Your task to perform on an android device: toggle sleep mode Image 0: 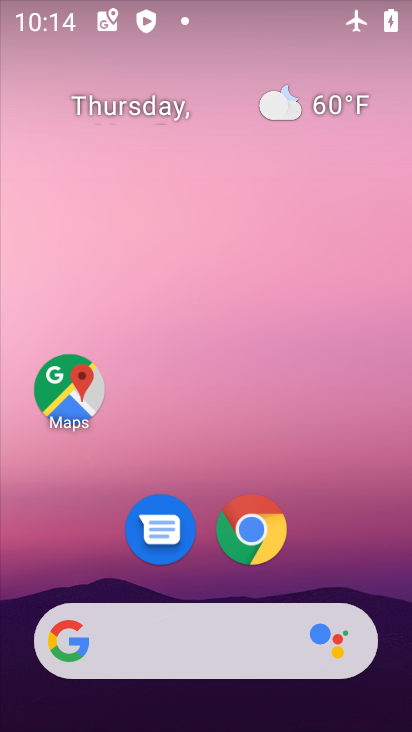
Step 0: drag from (366, 564) to (102, 76)
Your task to perform on an android device: toggle sleep mode Image 1: 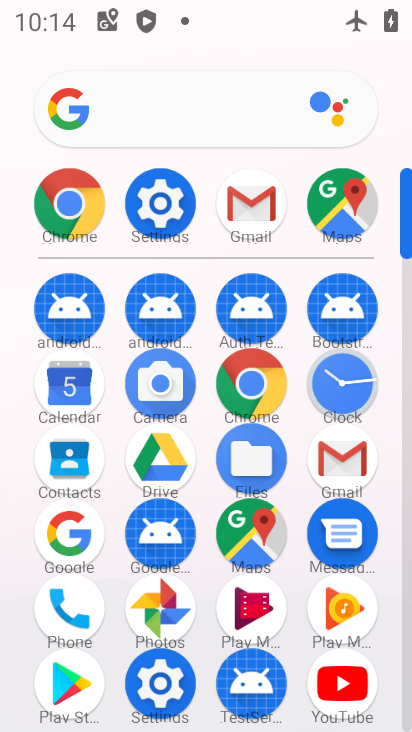
Step 1: click (167, 200)
Your task to perform on an android device: toggle sleep mode Image 2: 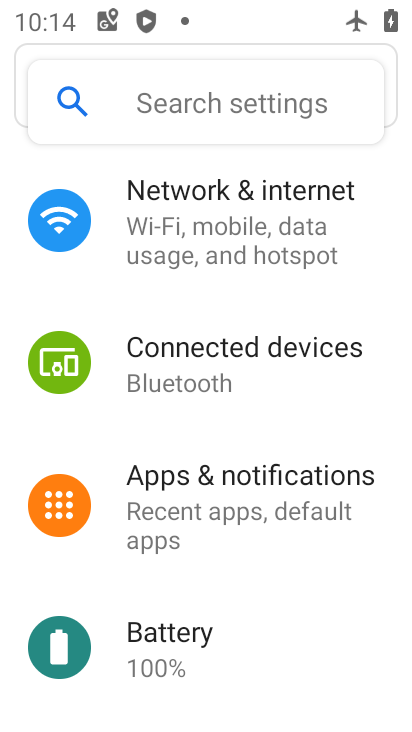
Step 2: drag from (253, 577) to (162, 204)
Your task to perform on an android device: toggle sleep mode Image 3: 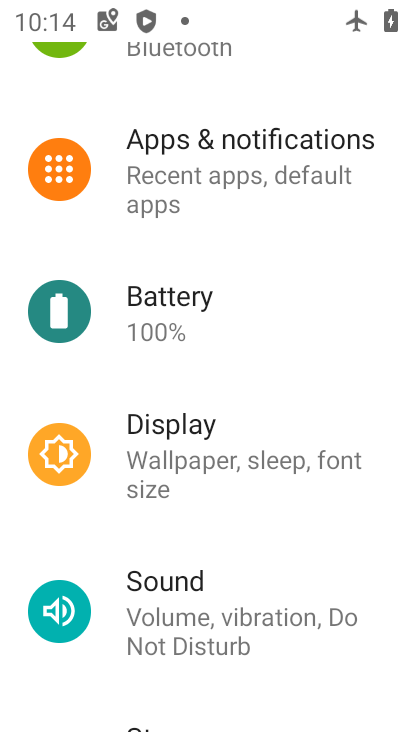
Step 3: click (162, 455)
Your task to perform on an android device: toggle sleep mode Image 4: 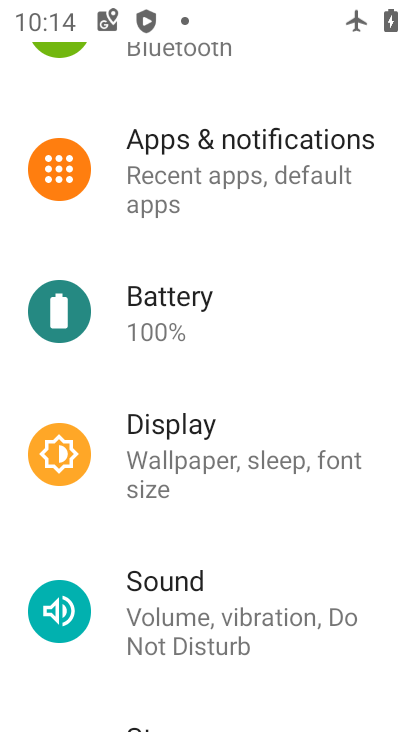
Step 4: click (162, 451)
Your task to perform on an android device: toggle sleep mode Image 5: 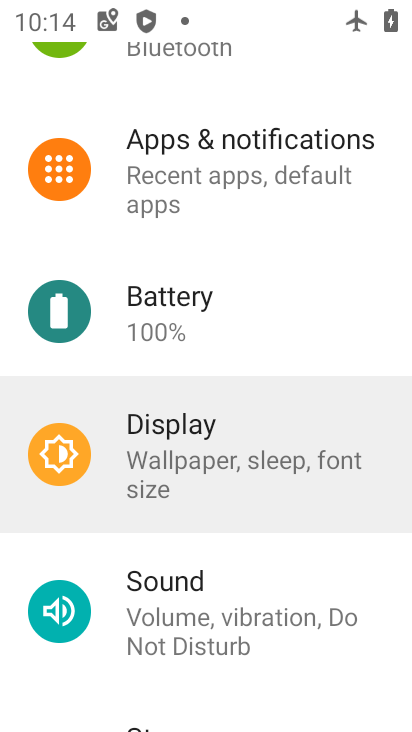
Step 5: click (158, 445)
Your task to perform on an android device: toggle sleep mode Image 6: 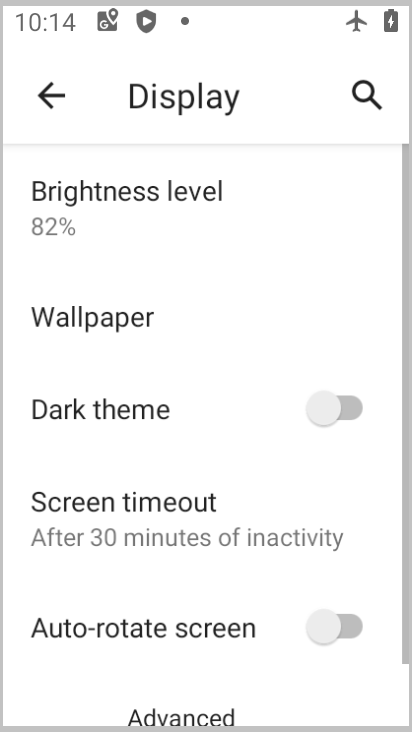
Step 6: click (157, 436)
Your task to perform on an android device: toggle sleep mode Image 7: 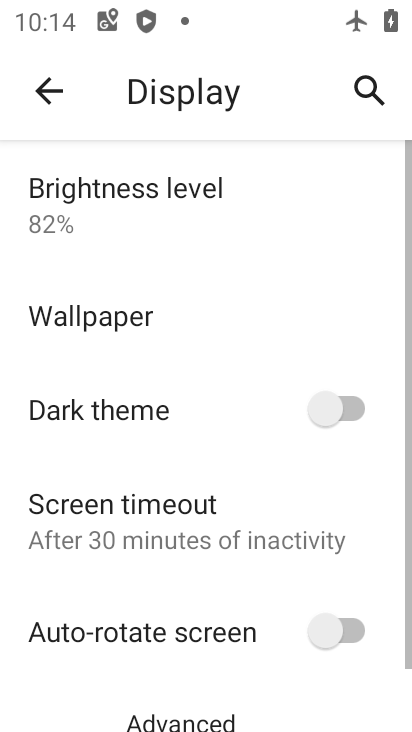
Step 7: click (136, 410)
Your task to perform on an android device: toggle sleep mode Image 8: 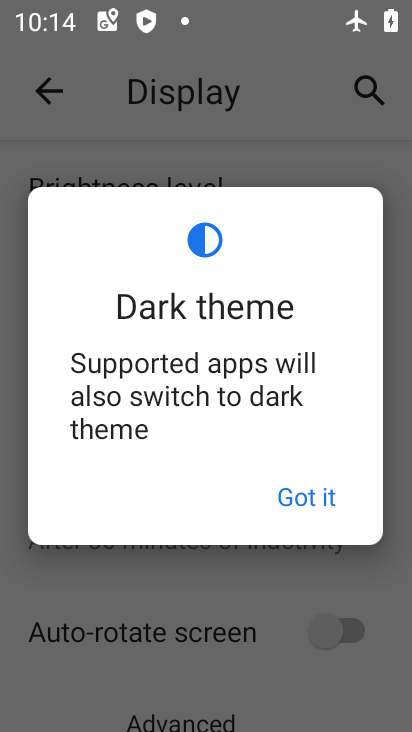
Step 8: click (326, 488)
Your task to perform on an android device: toggle sleep mode Image 9: 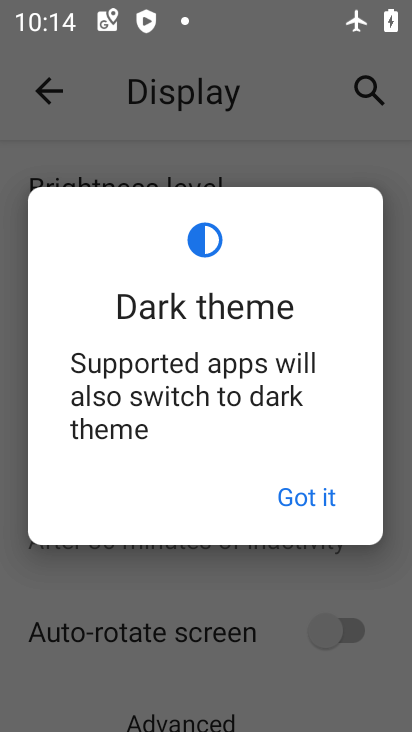
Step 9: click (325, 492)
Your task to perform on an android device: toggle sleep mode Image 10: 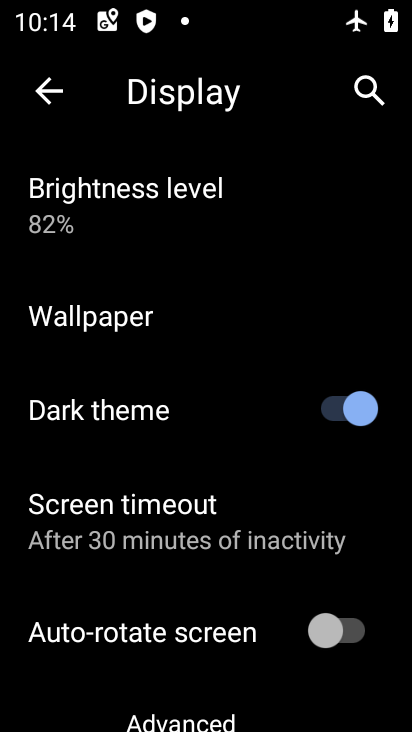
Step 10: click (39, 94)
Your task to perform on an android device: toggle sleep mode Image 11: 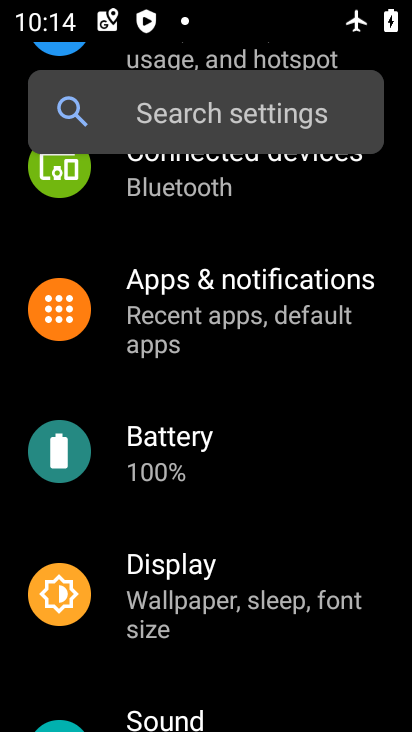
Step 11: click (186, 589)
Your task to perform on an android device: toggle sleep mode Image 12: 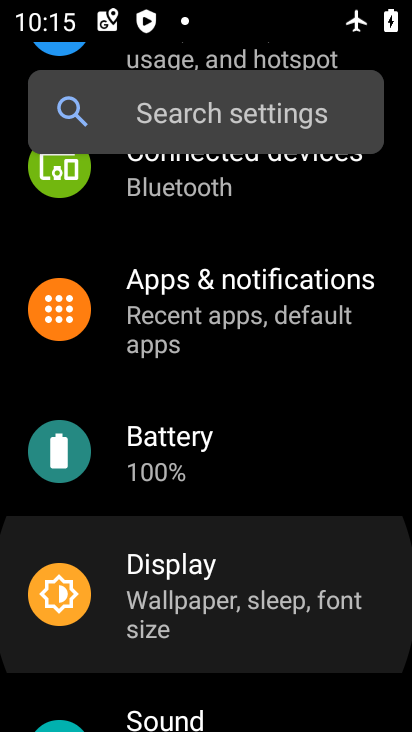
Step 12: click (187, 590)
Your task to perform on an android device: toggle sleep mode Image 13: 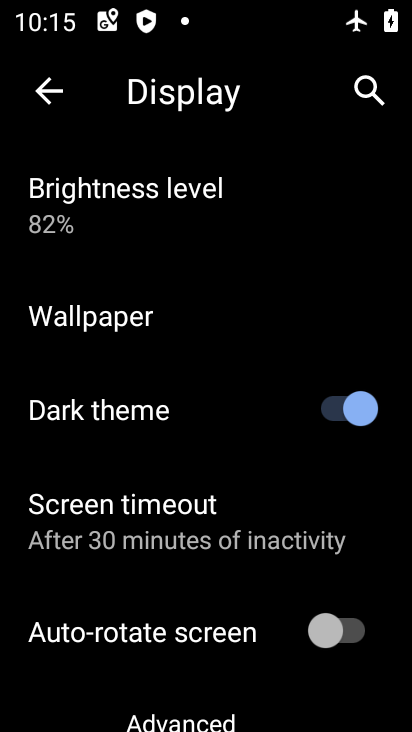
Step 13: click (348, 411)
Your task to perform on an android device: toggle sleep mode Image 14: 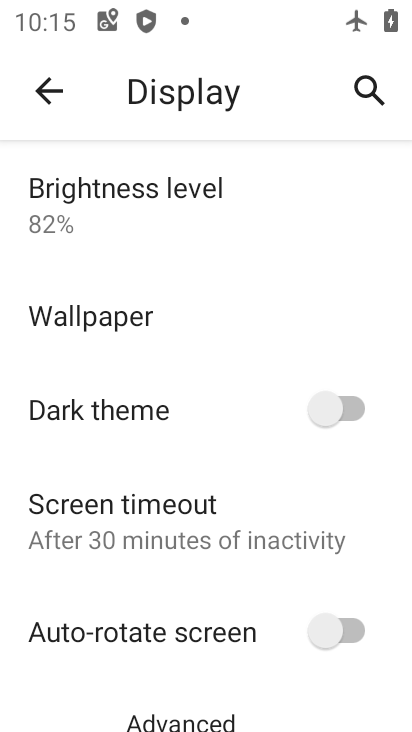
Step 14: click (121, 518)
Your task to perform on an android device: toggle sleep mode Image 15: 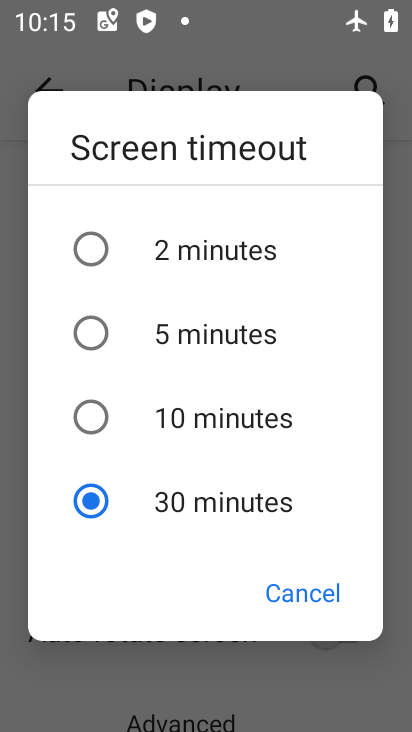
Step 15: click (87, 423)
Your task to perform on an android device: toggle sleep mode Image 16: 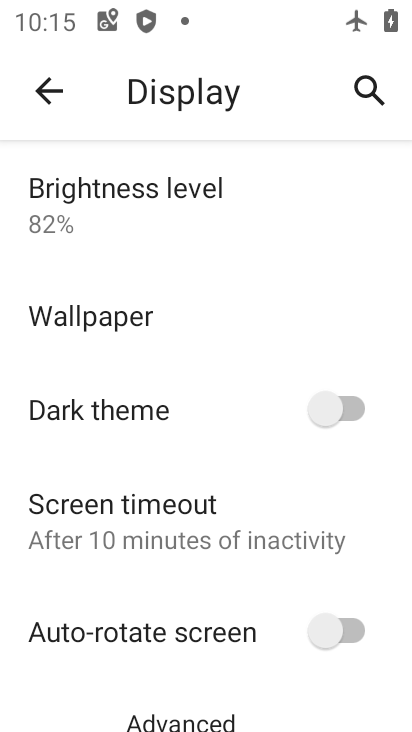
Step 16: task complete